Your task to perform on an android device: open app "Speedtest by Ookla" (install if not already installed) and enter user name: "hyena@outlook.com" and password: "terminators" Image 0: 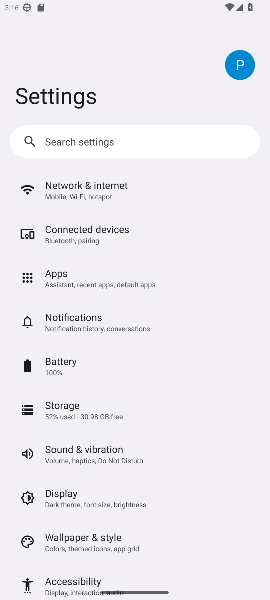
Step 0: press home button
Your task to perform on an android device: open app "Speedtest by Ookla" (install if not already installed) and enter user name: "hyena@outlook.com" and password: "terminators" Image 1: 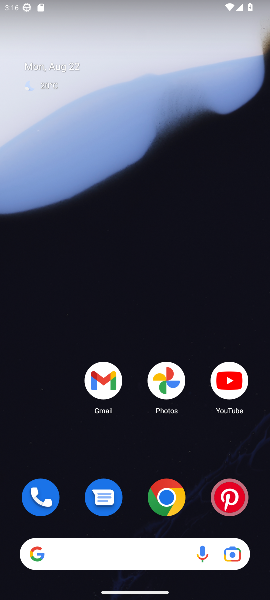
Step 1: drag from (63, 446) to (69, 129)
Your task to perform on an android device: open app "Speedtest by Ookla" (install if not already installed) and enter user name: "hyena@outlook.com" and password: "terminators" Image 2: 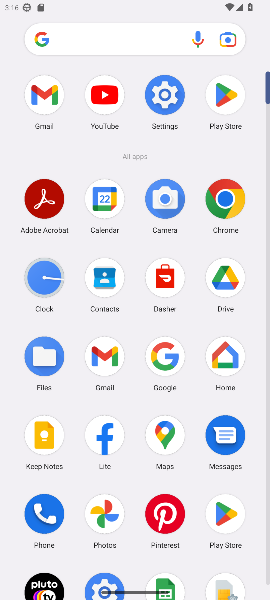
Step 2: click (226, 98)
Your task to perform on an android device: open app "Speedtest by Ookla" (install if not already installed) and enter user name: "hyena@outlook.com" and password: "terminators" Image 3: 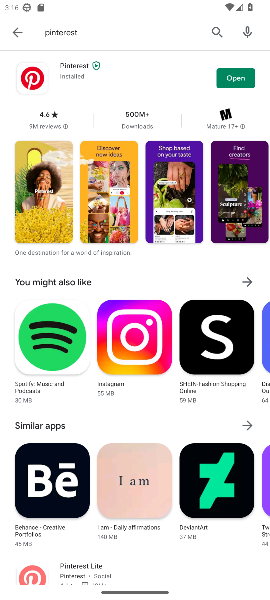
Step 3: press back button
Your task to perform on an android device: open app "Speedtest by Ookla" (install if not already installed) and enter user name: "hyena@outlook.com" and password: "terminators" Image 4: 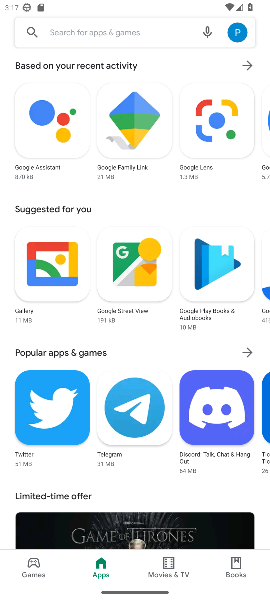
Step 4: type "Speedtest by Ookla"
Your task to perform on an android device: open app "Speedtest by Ookla" (install if not already installed) and enter user name: "hyena@outlook.com" and password: "terminators" Image 5: 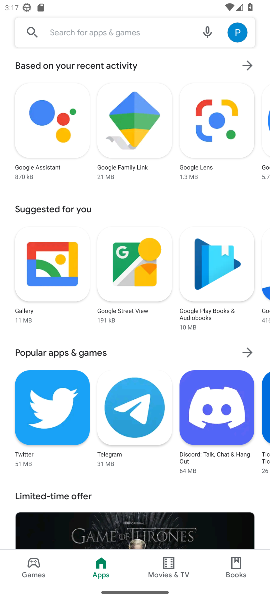
Step 5: press enter
Your task to perform on an android device: open app "Speedtest by Ookla" (install if not already installed) and enter user name: "hyena@outlook.com" and password: "terminators" Image 6: 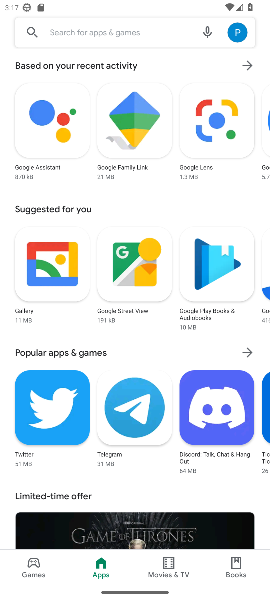
Step 6: click (79, 27)
Your task to perform on an android device: open app "Speedtest by Ookla" (install if not already installed) and enter user name: "hyena@outlook.com" and password: "terminators" Image 7: 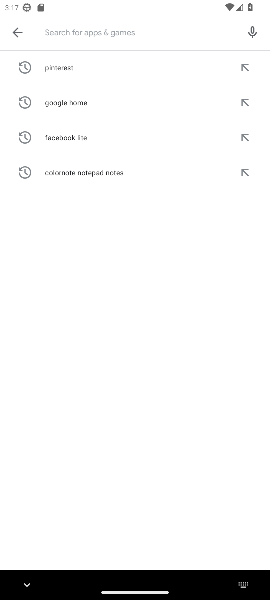
Step 7: type "Speedtest by Ookla"
Your task to perform on an android device: open app "Speedtest by Ookla" (install if not already installed) and enter user name: "hyena@outlook.com" and password: "terminators" Image 8: 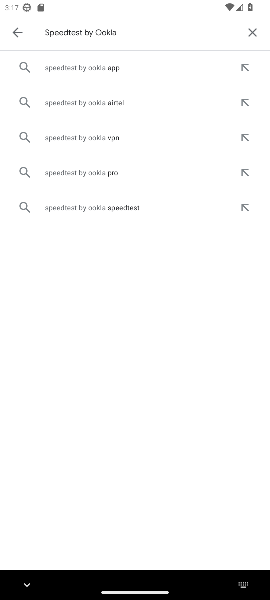
Step 8: click (113, 67)
Your task to perform on an android device: open app "Speedtest by Ookla" (install if not already installed) and enter user name: "hyena@outlook.com" and password: "terminators" Image 9: 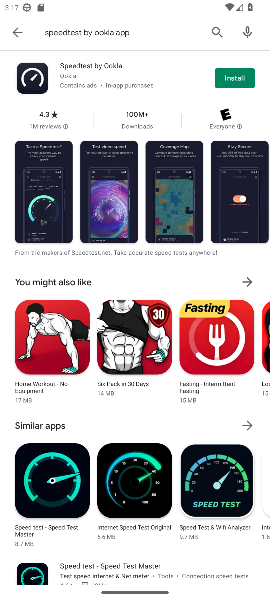
Step 9: click (234, 75)
Your task to perform on an android device: open app "Speedtest by Ookla" (install if not already installed) and enter user name: "hyena@outlook.com" and password: "terminators" Image 10: 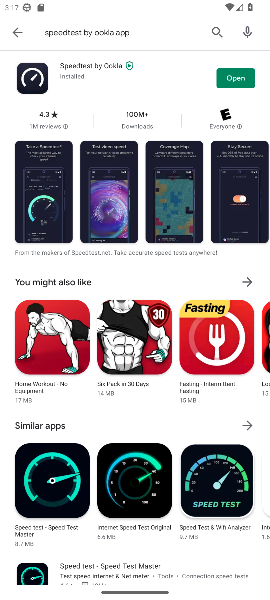
Step 10: click (246, 74)
Your task to perform on an android device: open app "Speedtest by Ookla" (install if not already installed) and enter user name: "hyena@outlook.com" and password: "terminators" Image 11: 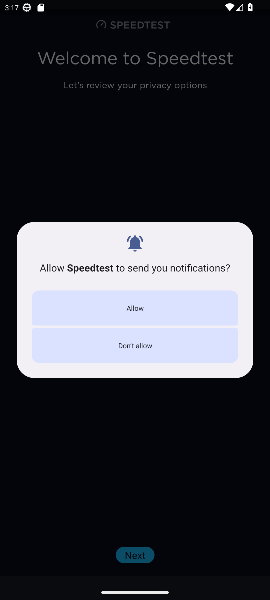
Step 11: click (142, 341)
Your task to perform on an android device: open app "Speedtest by Ookla" (install if not already installed) and enter user name: "hyena@outlook.com" and password: "terminators" Image 12: 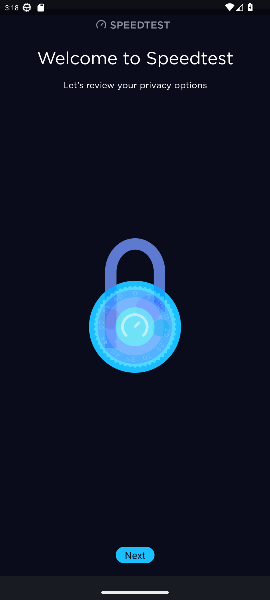
Step 12: click (131, 553)
Your task to perform on an android device: open app "Speedtest by Ookla" (install if not already installed) and enter user name: "hyena@outlook.com" and password: "terminators" Image 13: 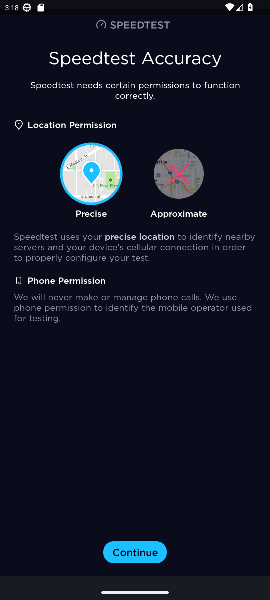
Step 13: click (135, 551)
Your task to perform on an android device: open app "Speedtest by Ookla" (install if not already installed) and enter user name: "hyena@outlook.com" and password: "terminators" Image 14: 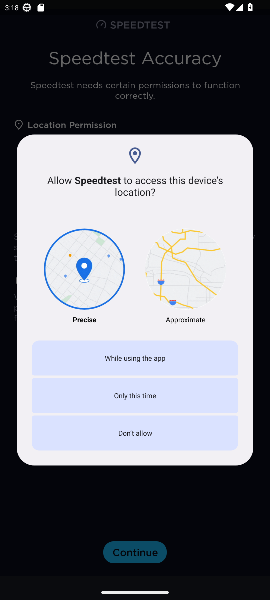
Step 14: click (147, 437)
Your task to perform on an android device: open app "Speedtest by Ookla" (install if not already installed) and enter user name: "hyena@outlook.com" and password: "terminators" Image 15: 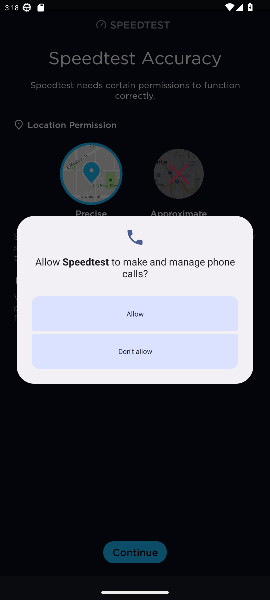
Step 15: click (158, 352)
Your task to perform on an android device: open app "Speedtest by Ookla" (install if not already installed) and enter user name: "hyena@outlook.com" and password: "terminators" Image 16: 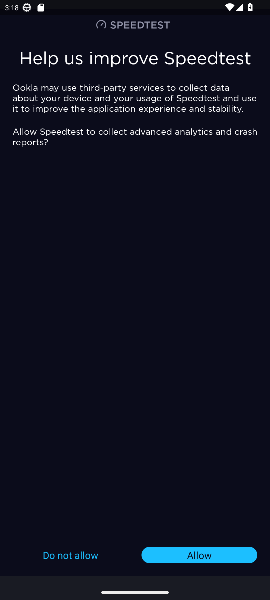
Step 16: click (79, 557)
Your task to perform on an android device: open app "Speedtest by Ookla" (install if not already installed) and enter user name: "hyena@outlook.com" and password: "terminators" Image 17: 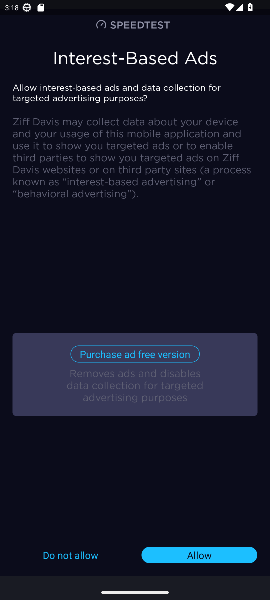
Step 17: click (133, 356)
Your task to perform on an android device: open app "Speedtest by Ookla" (install if not already installed) and enter user name: "hyena@outlook.com" and password: "terminators" Image 18: 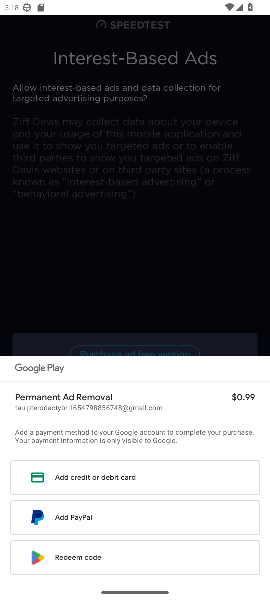
Step 18: click (188, 281)
Your task to perform on an android device: open app "Speedtest by Ookla" (install if not already installed) and enter user name: "hyena@outlook.com" and password: "terminators" Image 19: 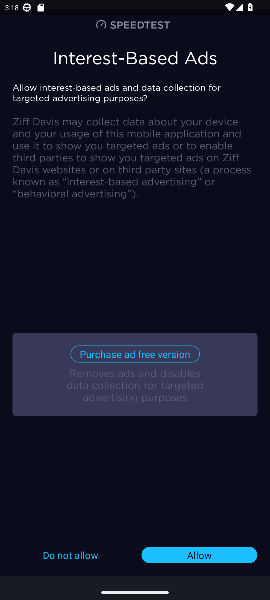
Step 19: task complete